Your task to perform on an android device: Search for "duracell triple a" on newegg.com, select the first entry, and add it to the cart. Image 0: 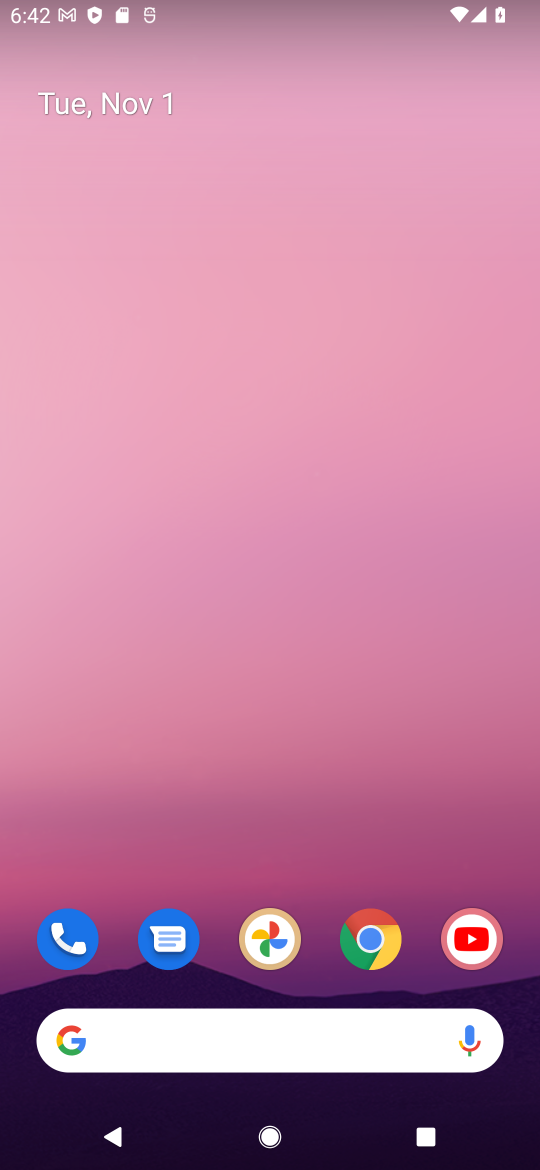
Step 0: drag from (190, 504) to (178, 347)
Your task to perform on an android device: Search for "duracell triple a" on newegg.com, select the first entry, and add it to the cart. Image 1: 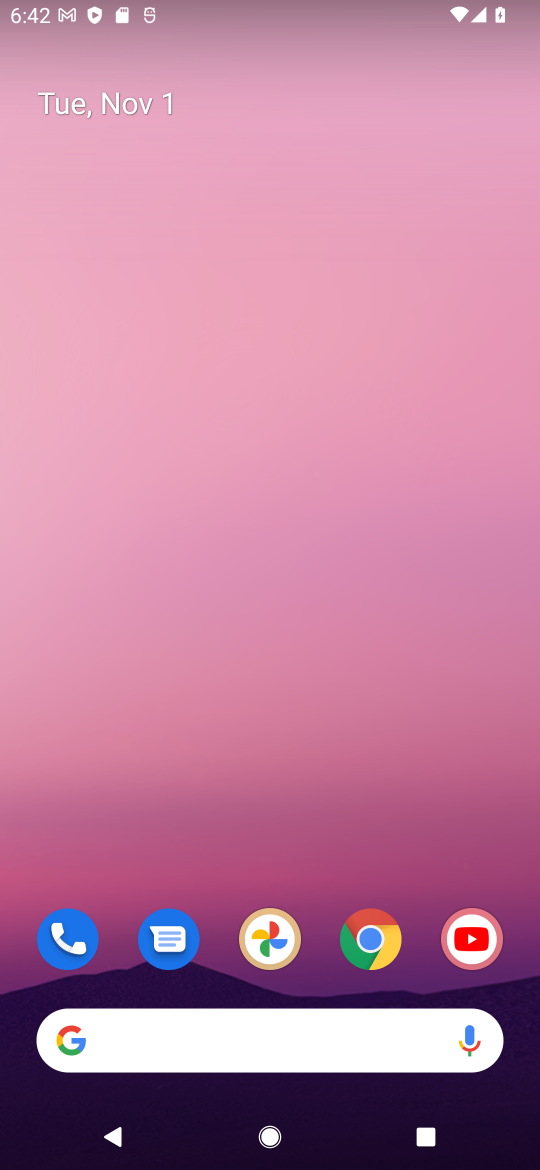
Step 1: drag from (341, 826) to (272, 86)
Your task to perform on an android device: Search for "duracell triple a" on newegg.com, select the first entry, and add it to the cart. Image 2: 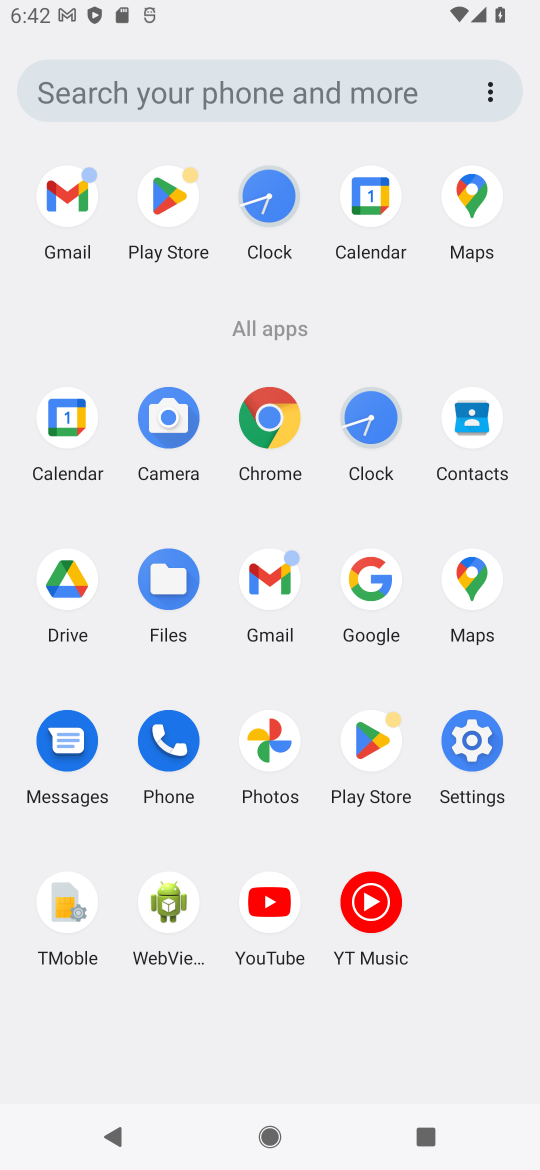
Step 2: click (268, 430)
Your task to perform on an android device: Search for "duracell triple a" on newegg.com, select the first entry, and add it to the cart. Image 3: 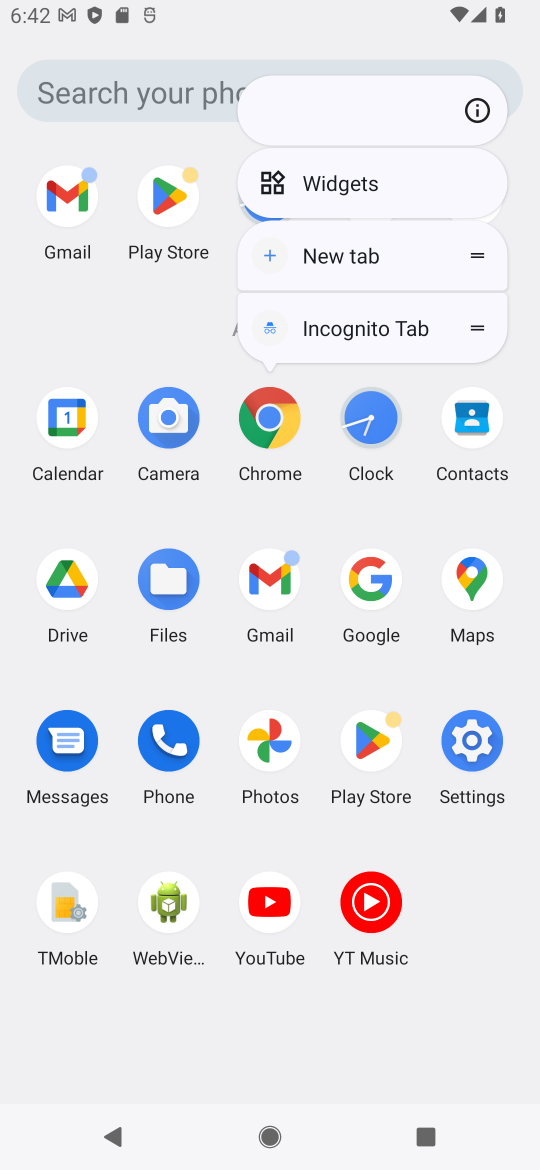
Step 3: click (271, 433)
Your task to perform on an android device: Search for "duracell triple a" on newegg.com, select the first entry, and add it to the cart. Image 4: 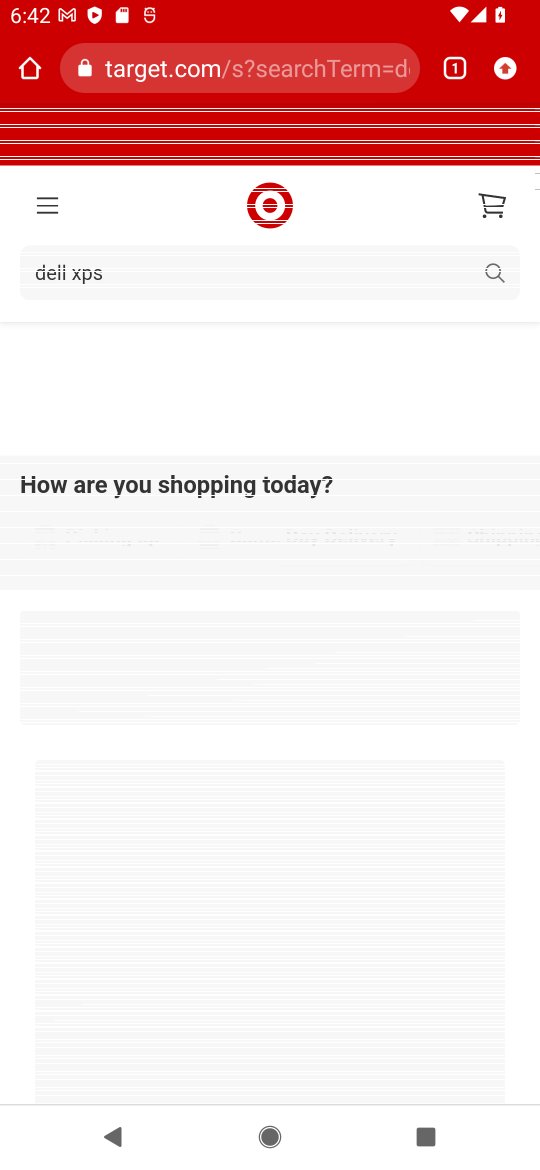
Step 4: click (244, 78)
Your task to perform on an android device: Search for "duracell triple a" on newegg.com, select the first entry, and add it to the cart. Image 5: 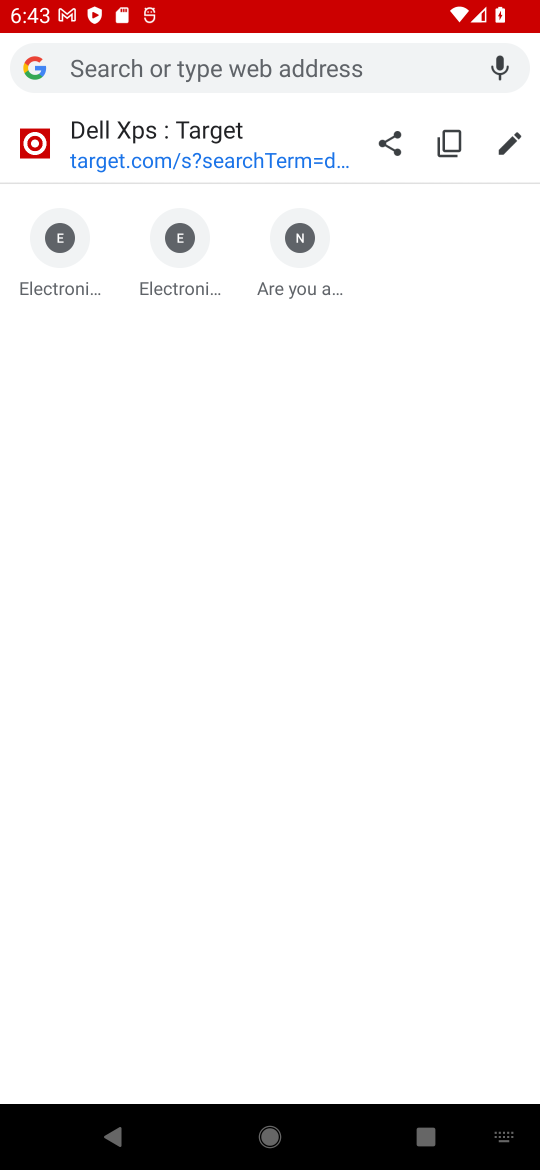
Step 5: type "newegg.com"
Your task to perform on an android device: Search for "duracell triple a" on newegg.com, select the first entry, and add it to the cart. Image 6: 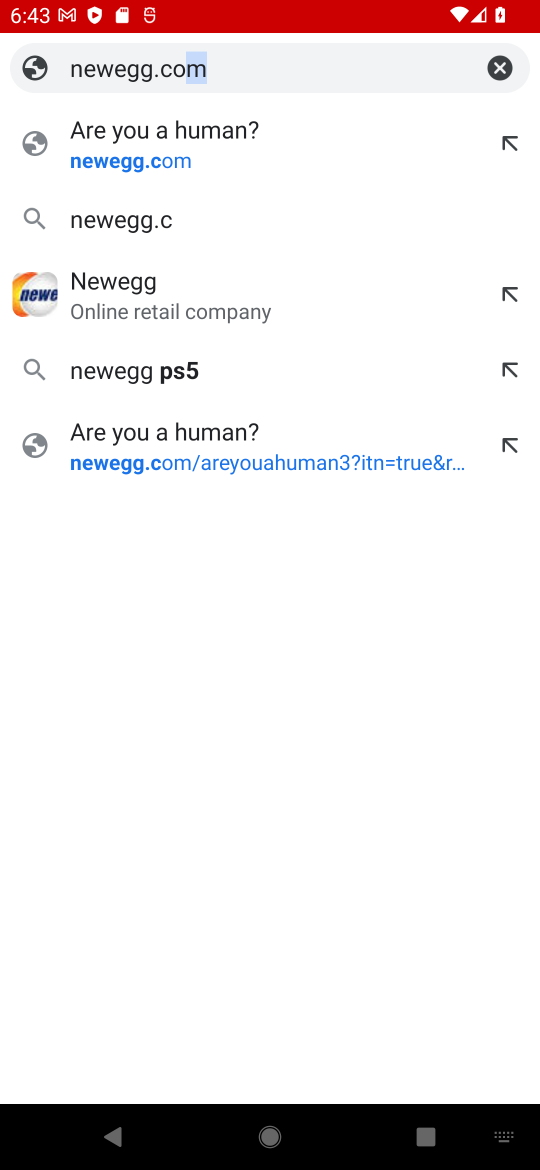
Step 6: press enter
Your task to perform on an android device: Search for "duracell triple a" on newegg.com, select the first entry, and add it to the cart. Image 7: 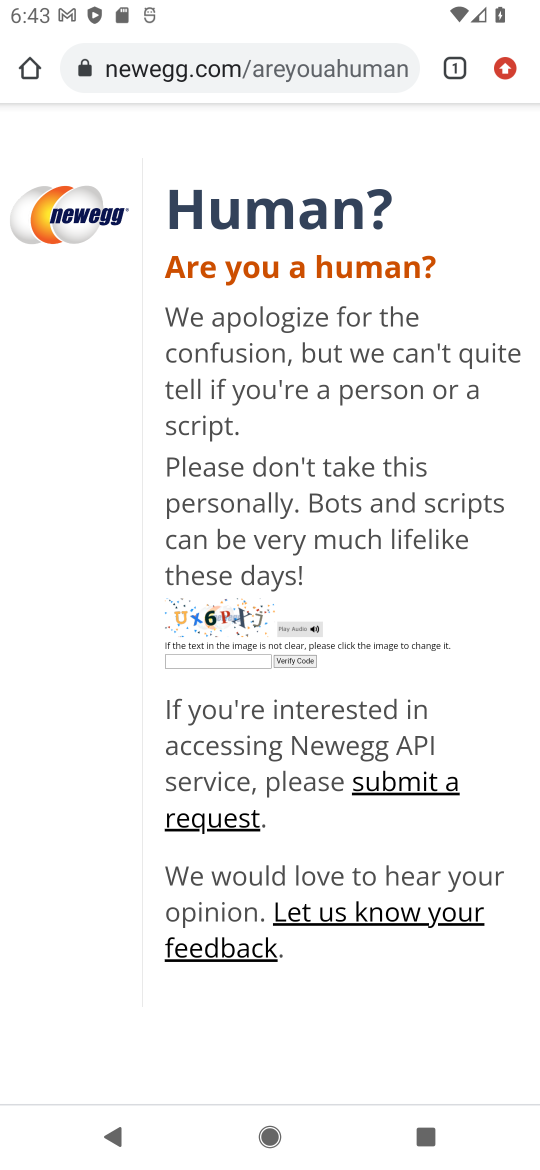
Step 7: task complete